Your task to perform on an android device: stop showing notifications on the lock screen Image 0: 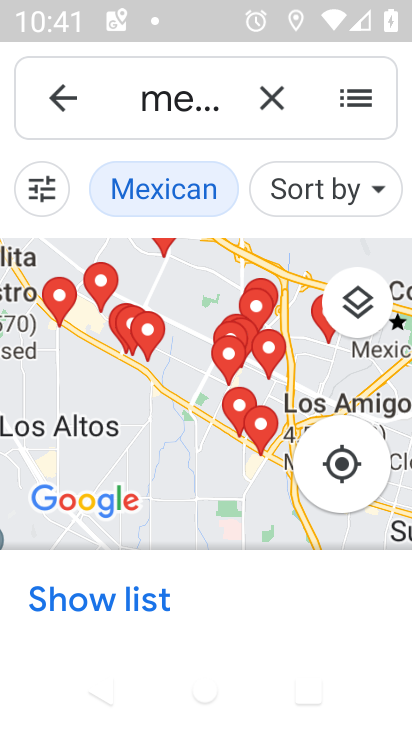
Step 0: press home button
Your task to perform on an android device: stop showing notifications on the lock screen Image 1: 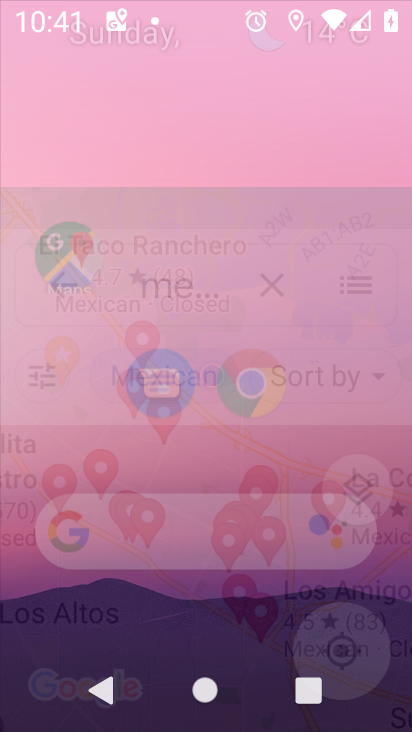
Step 1: drag from (177, 510) to (153, 14)
Your task to perform on an android device: stop showing notifications on the lock screen Image 2: 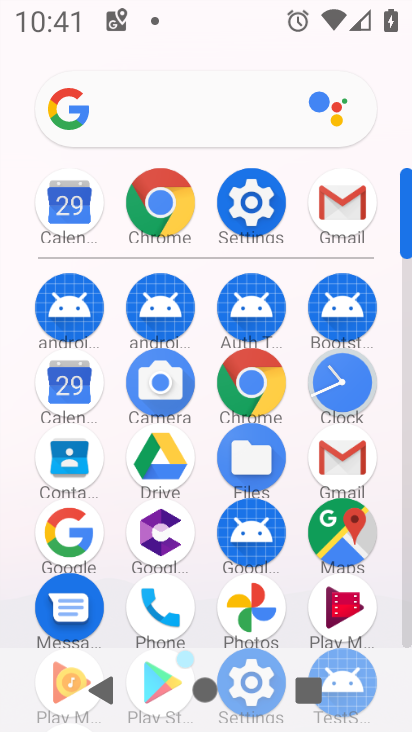
Step 2: click (251, 198)
Your task to perform on an android device: stop showing notifications on the lock screen Image 3: 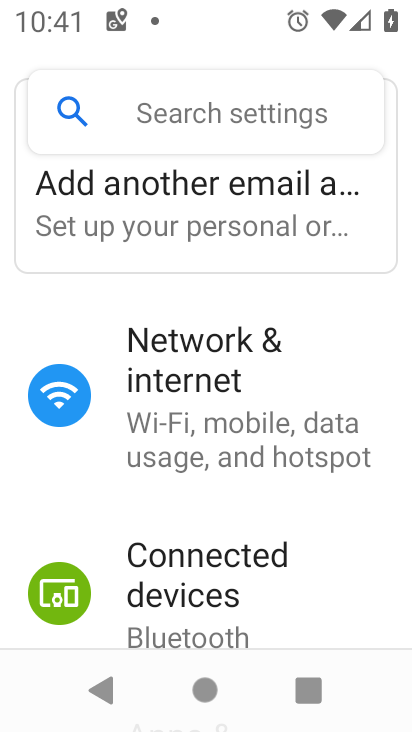
Step 3: drag from (251, 538) to (296, 294)
Your task to perform on an android device: stop showing notifications on the lock screen Image 4: 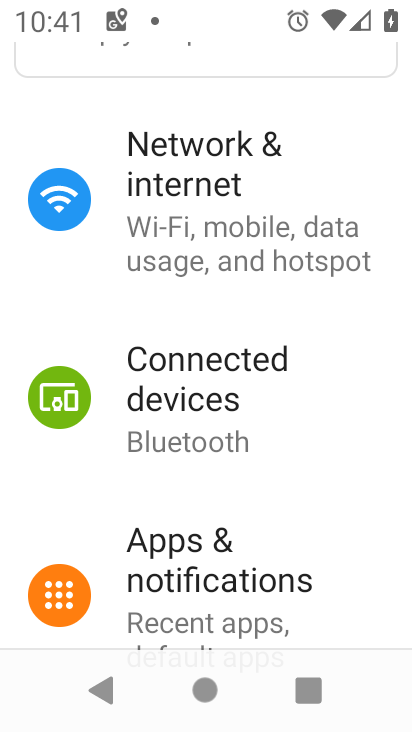
Step 4: drag from (190, 554) to (325, 109)
Your task to perform on an android device: stop showing notifications on the lock screen Image 5: 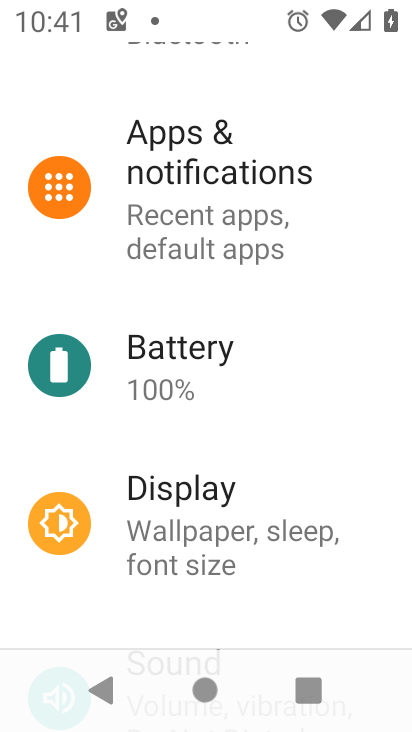
Step 5: click (175, 538)
Your task to perform on an android device: stop showing notifications on the lock screen Image 6: 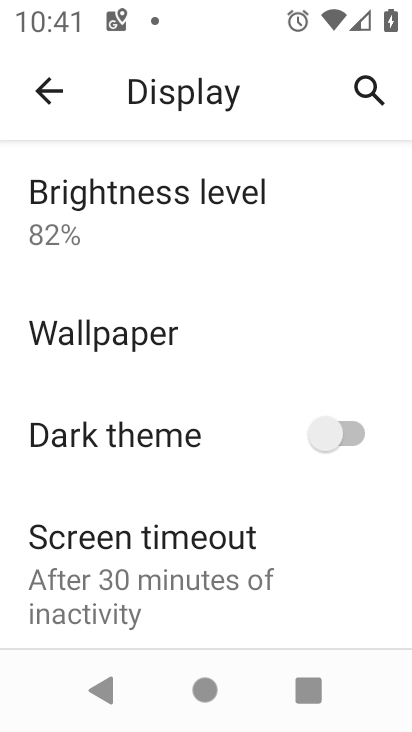
Step 6: click (28, 90)
Your task to perform on an android device: stop showing notifications on the lock screen Image 7: 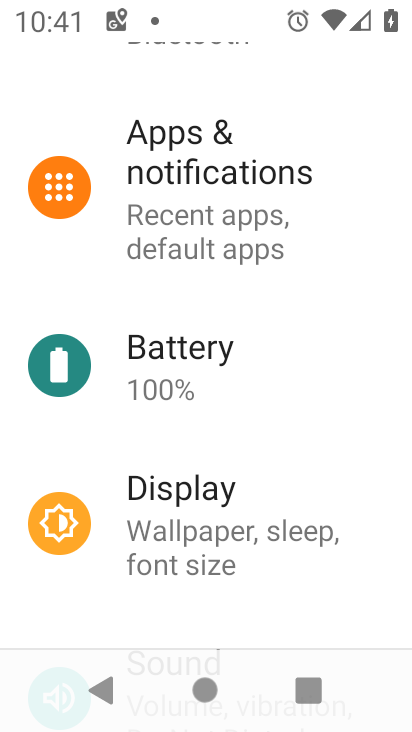
Step 7: click (194, 175)
Your task to perform on an android device: stop showing notifications on the lock screen Image 8: 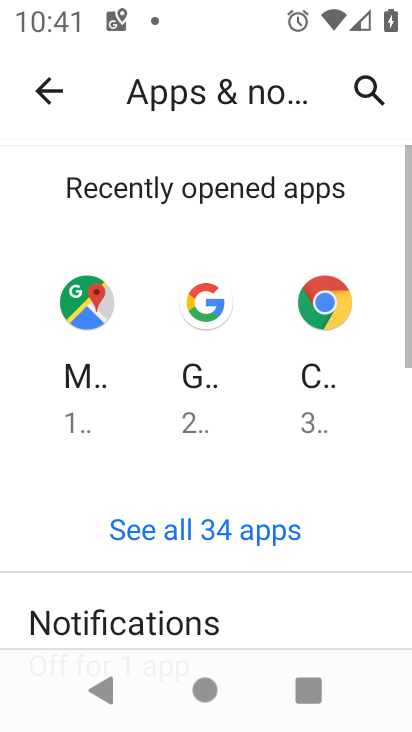
Step 8: drag from (184, 590) to (263, 124)
Your task to perform on an android device: stop showing notifications on the lock screen Image 9: 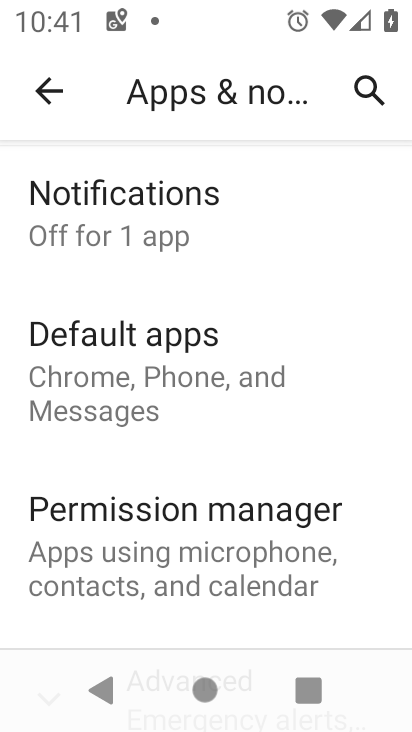
Step 9: click (175, 259)
Your task to perform on an android device: stop showing notifications on the lock screen Image 10: 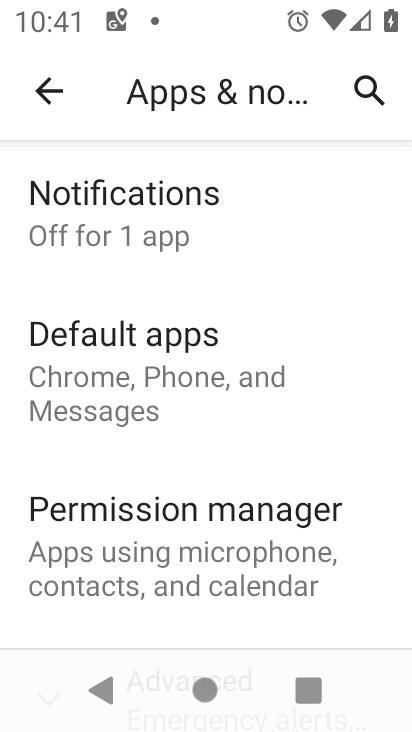
Step 10: click (175, 259)
Your task to perform on an android device: stop showing notifications on the lock screen Image 11: 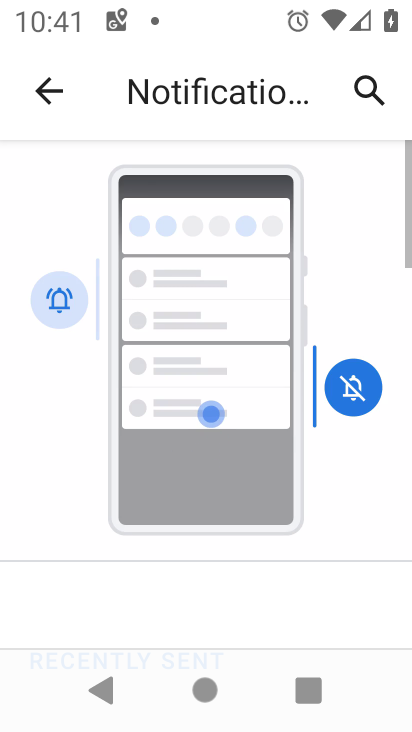
Step 11: drag from (187, 546) to (286, 40)
Your task to perform on an android device: stop showing notifications on the lock screen Image 12: 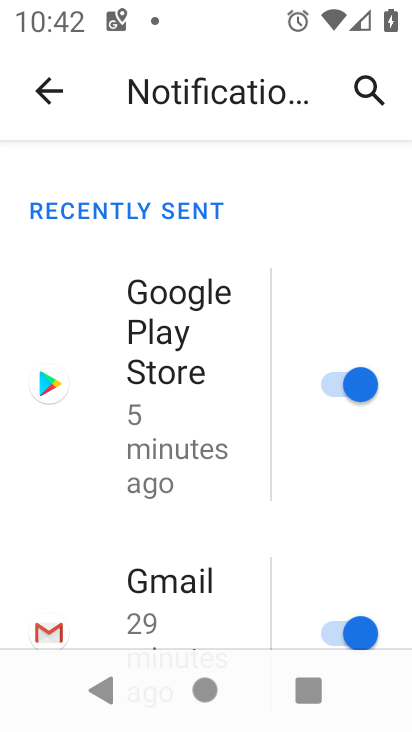
Step 12: drag from (163, 492) to (243, 38)
Your task to perform on an android device: stop showing notifications on the lock screen Image 13: 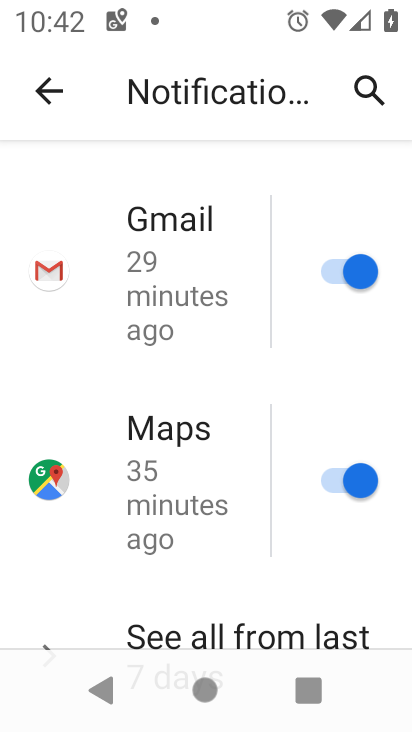
Step 13: drag from (218, 579) to (321, 146)
Your task to perform on an android device: stop showing notifications on the lock screen Image 14: 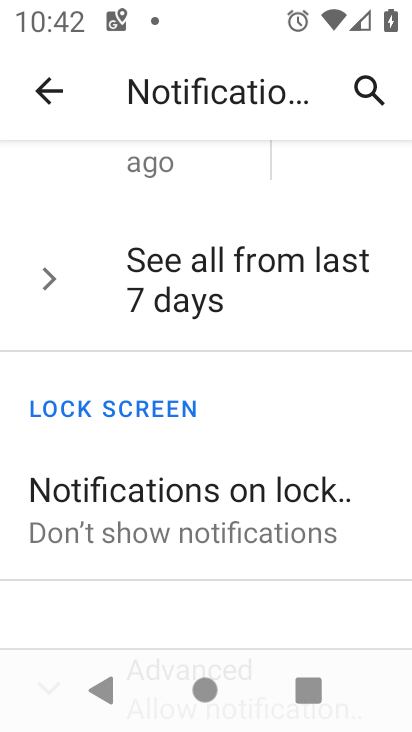
Step 14: click (161, 544)
Your task to perform on an android device: stop showing notifications on the lock screen Image 15: 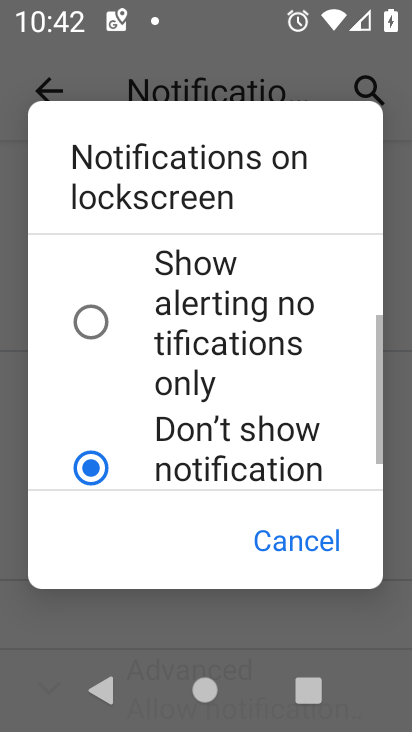
Step 15: task complete